Your task to perform on an android device: Open Yahoo.com Image 0: 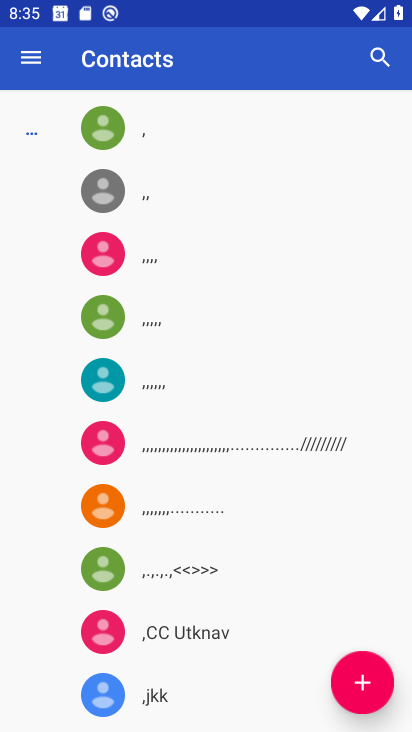
Step 0: press home button
Your task to perform on an android device: Open Yahoo.com Image 1: 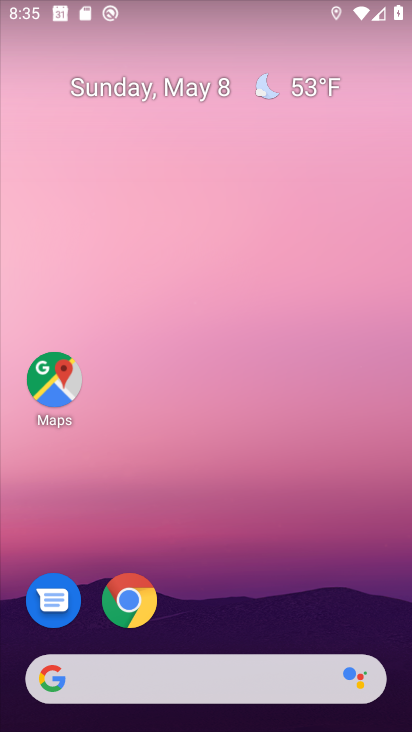
Step 1: drag from (220, 640) to (225, 97)
Your task to perform on an android device: Open Yahoo.com Image 2: 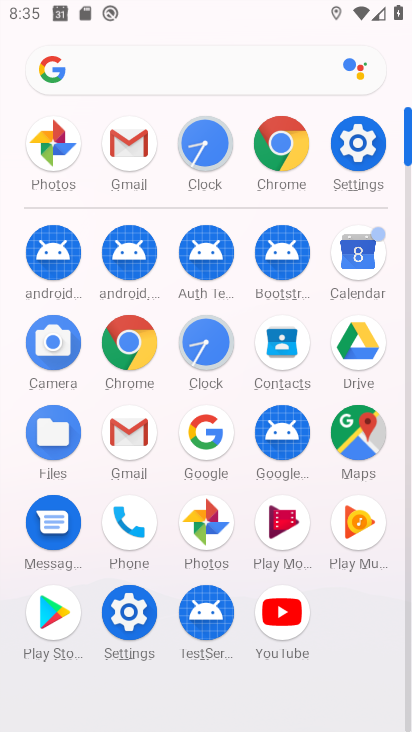
Step 2: click (141, 360)
Your task to perform on an android device: Open Yahoo.com Image 3: 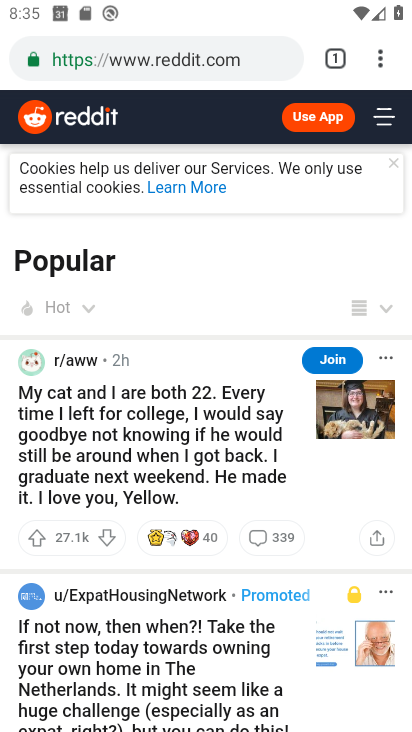
Step 3: click (196, 57)
Your task to perform on an android device: Open Yahoo.com Image 4: 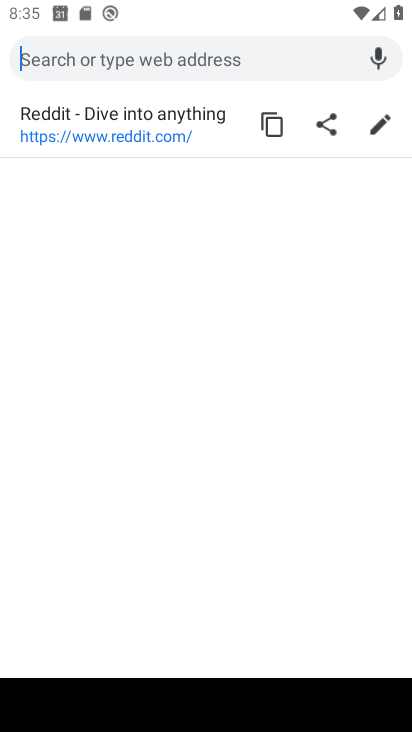
Step 4: type "yahoo.com"
Your task to perform on an android device: Open Yahoo.com Image 5: 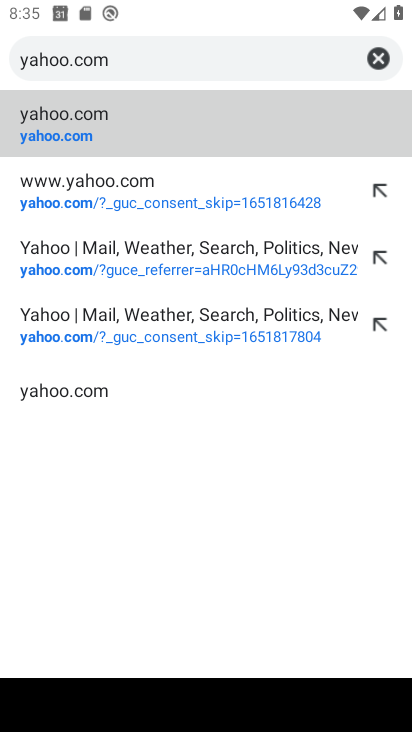
Step 5: click (252, 132)
Your task to perform on an android device: Open Yahoo.com Image 6: 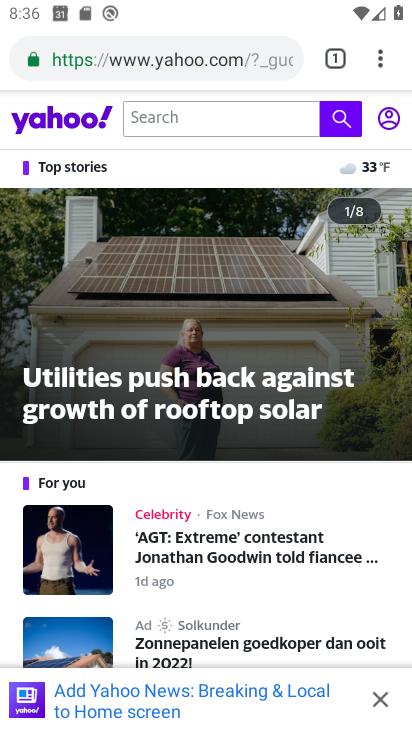
Step 6: task complete